Your task to perform on an android device: Search for vegetarian restaurants on Maps Image 0: 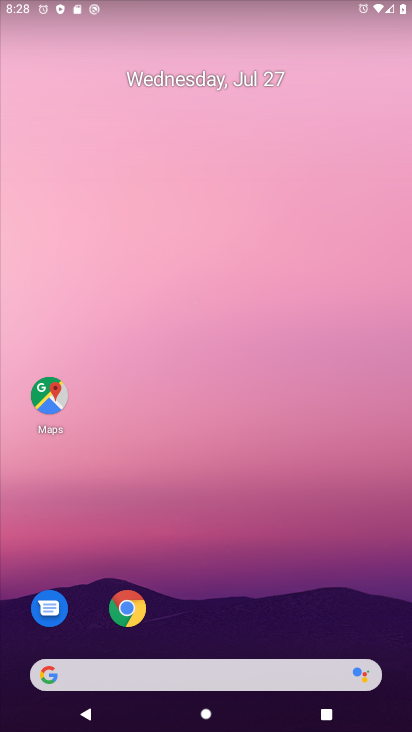
Step 0: drag from (253, 489) to (250, 39)
Your task to perform on an android device: Search for vegetarian restaurants on Maps Image 1: 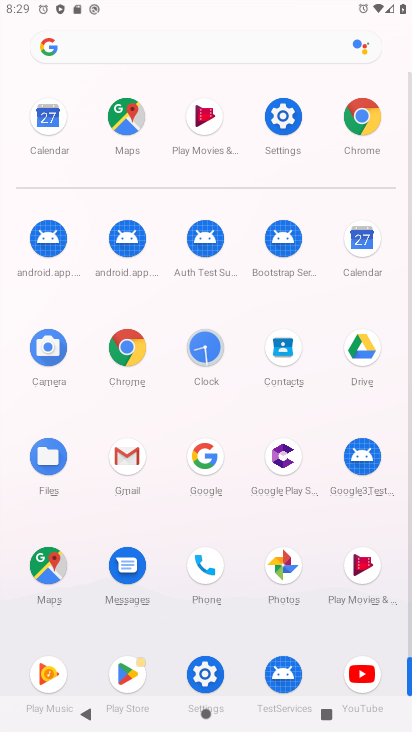
Step 1: click (351, 108)
Your task to perform on an android device: Search for vegetarian restaurants on Maps Image 2: 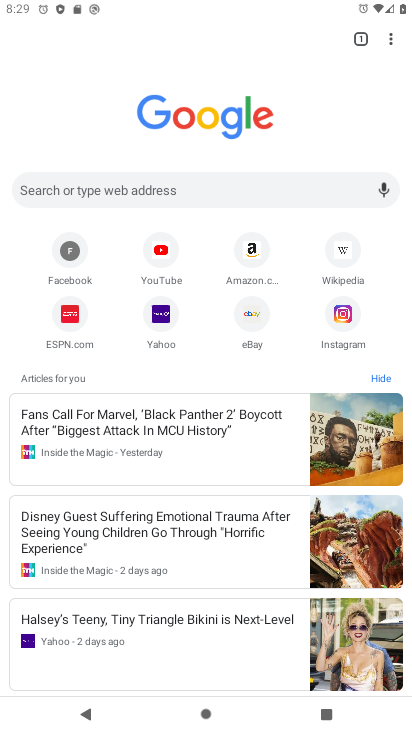
Step 2: press home button
Your task to perform on an android device: Search for vegetarian restaurants on Maps Image 3: 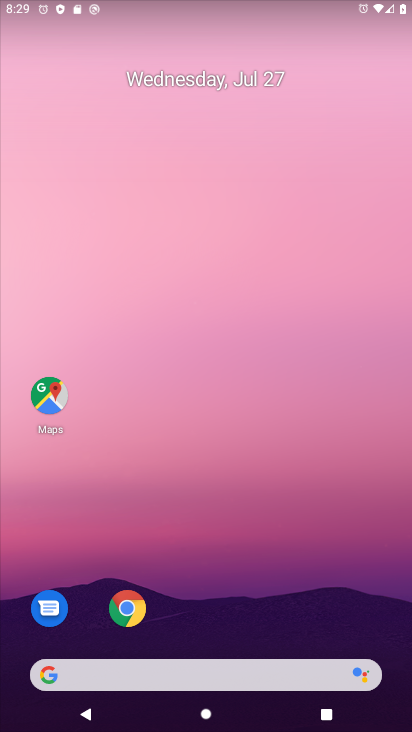
Step 3: click (55, 393)
Your task to perform on an android device: Search for vegetarian restaurants on Maps Image 4: 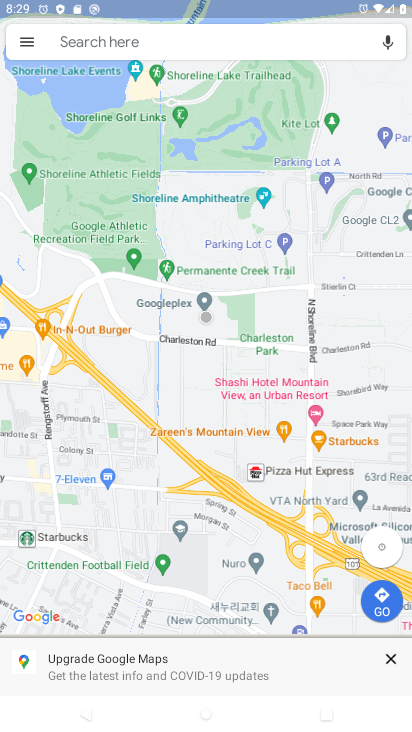
Step 4: click (138, 48)
Your task to perform on an android device: Search for vegetarian restaurants on Maps Image 5: 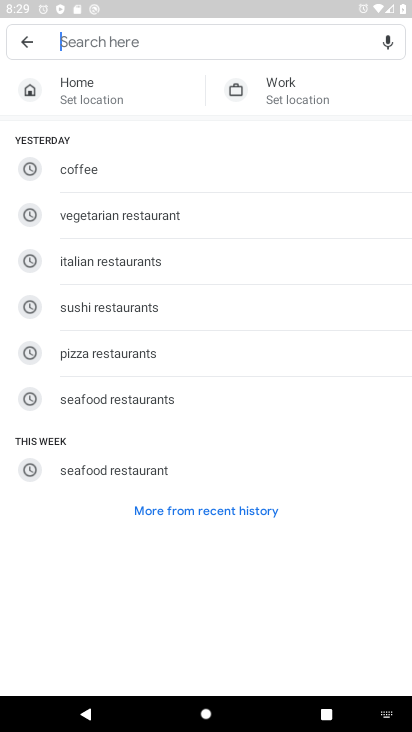
Step 5: type "vegetarian restaurants "
Your task to perform on an android device: Search for vegetarian restaurants on Maps Image 6: 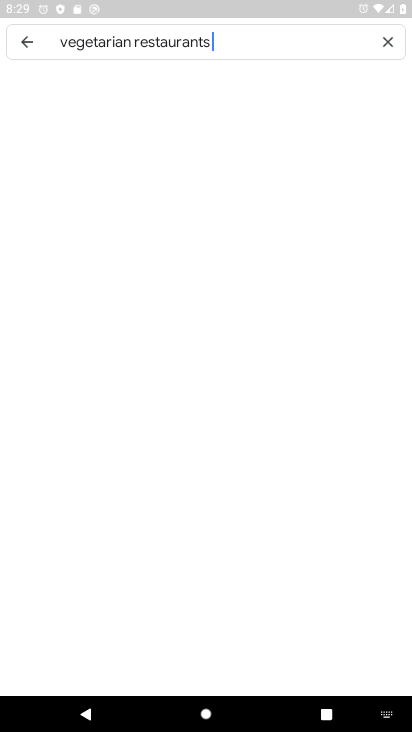
Step 6: press enter
Your task to perform on an android device: Search for vegetarian restaurants on Maps Image 7: 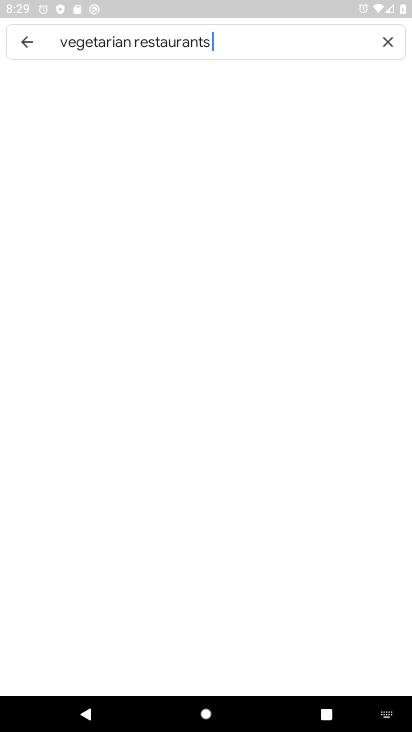
Step 7: type ""
Your task to perform on an android device: Search for vegetarian restaurants on Maps Image 8: 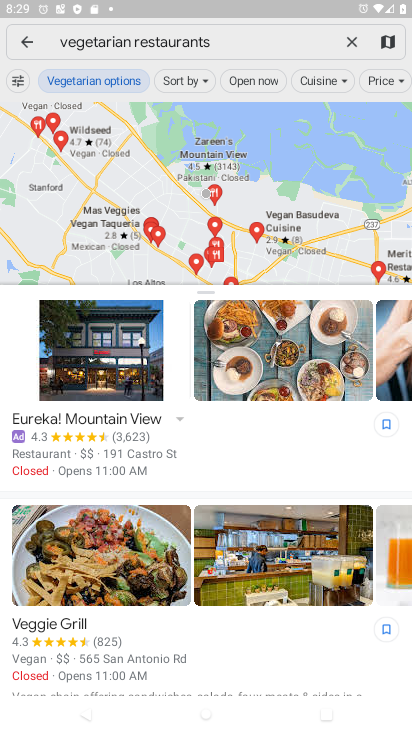
Step 8: task complete